Your task to perform on an android device: Toggle the flashlight Image 0: 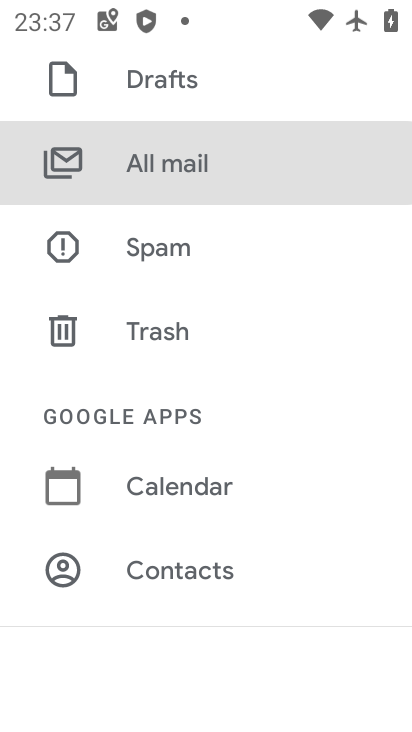
Step 0: press home button
Your task to perform on an android device: Toggle the flashlight Image 1: 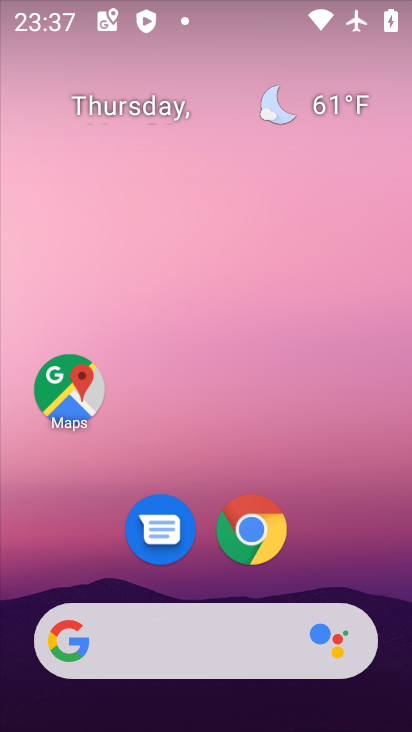
Step 1: drag from (318, 520) to (326, 368)
Your task to perform on an android device: Toggle the flashlight Image 2: 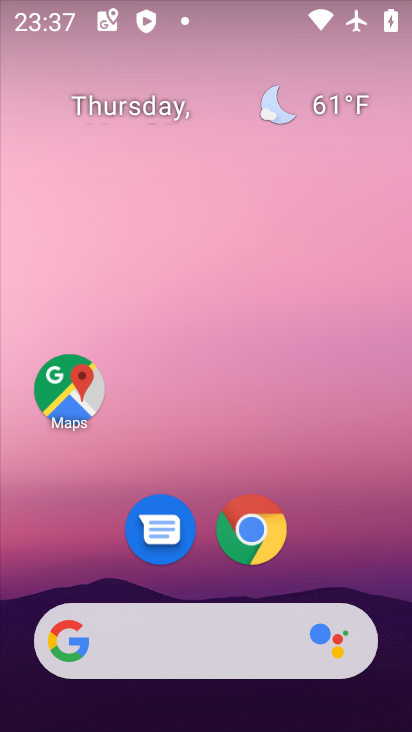
Step 2: drag from (342, 562) to (321, 148)
Your task to perform on an android device: Toggle the flashlight Image 3: 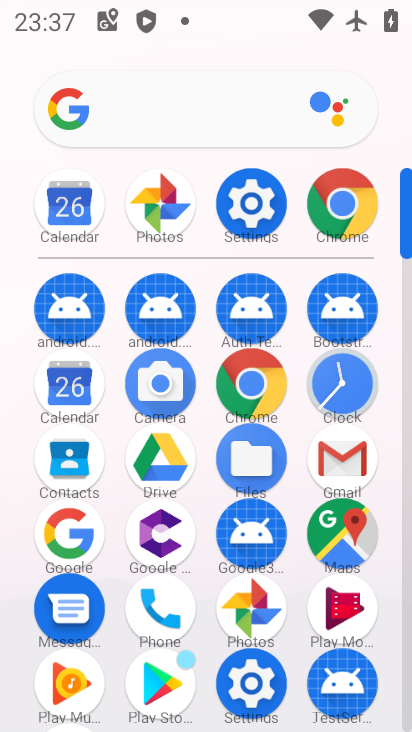
Step 3: click (260, 240)
Your task to perform on an android device: Toggle the flashlight Image 4: 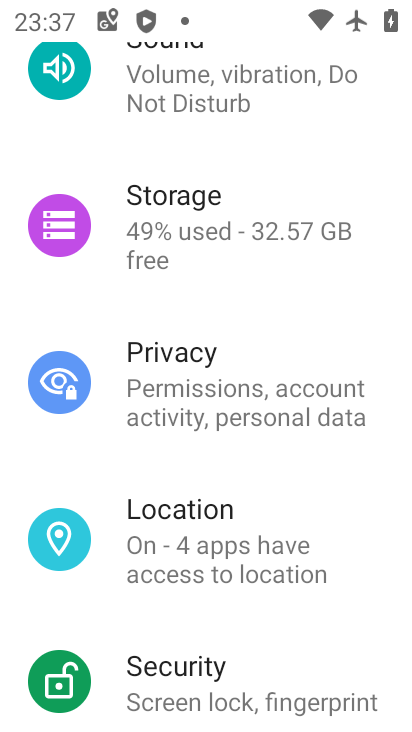
Step 4: click (232, 528)
Your task to perform on an android device: Toggle the flashlight Image 5: 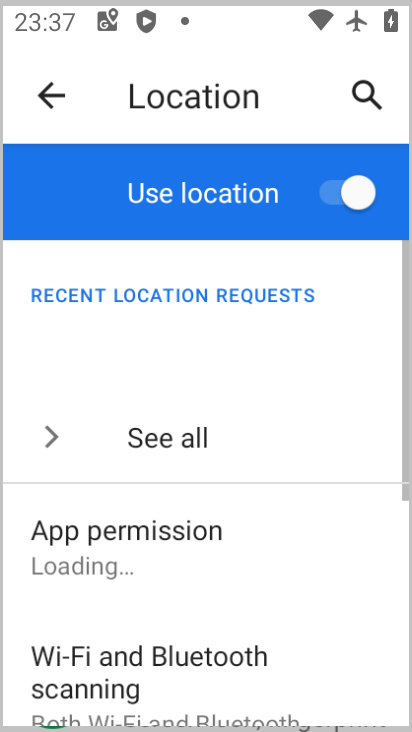
Step 5: task complete